Your task to perform on an android device: change the clock display to show seconds Image 0: 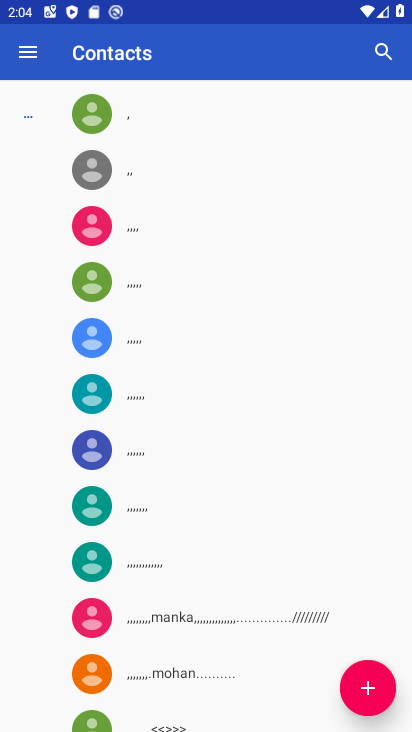
Step 0: press home button
Your task to perform on an android device: change the clock display to show seconds Image 1: 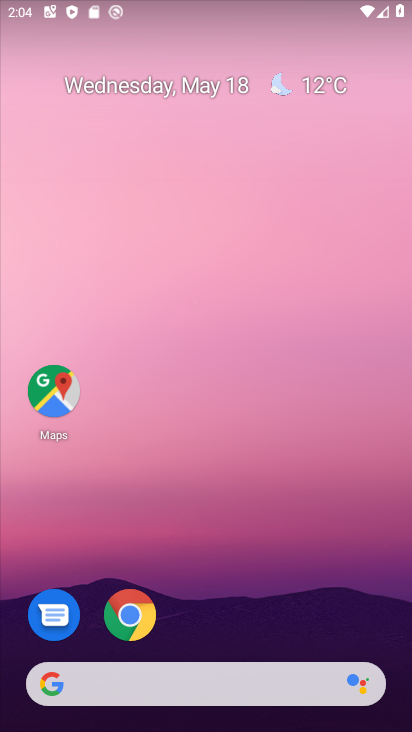
Step 1: drag from (315, 613) to (319, 38)
Your task to perform on an android device: change the clock display to show seconds Image 2: 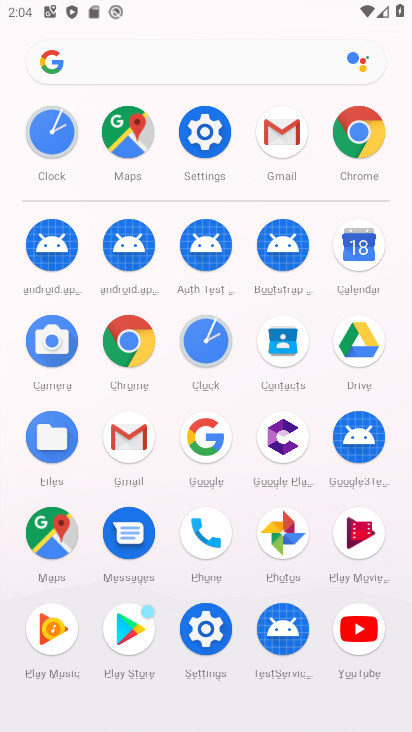
Step 2: click (196, 345)
Your task to perform on an android device: change the clock display to show seconds Image 3: 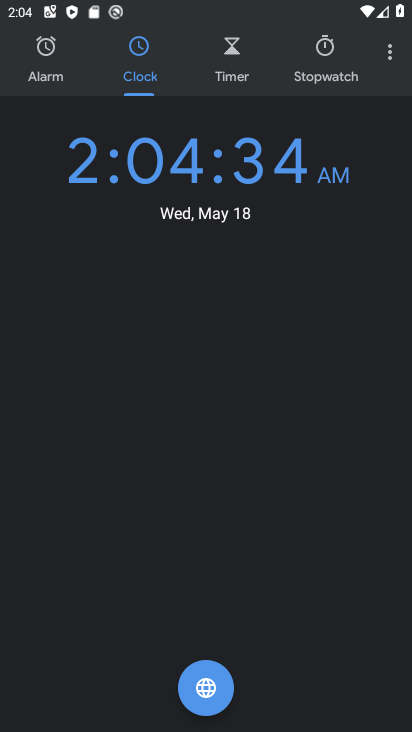
Step 3: click (394, 52)
Your task to perform on an android device: change the clock display to show seconds Image 4: 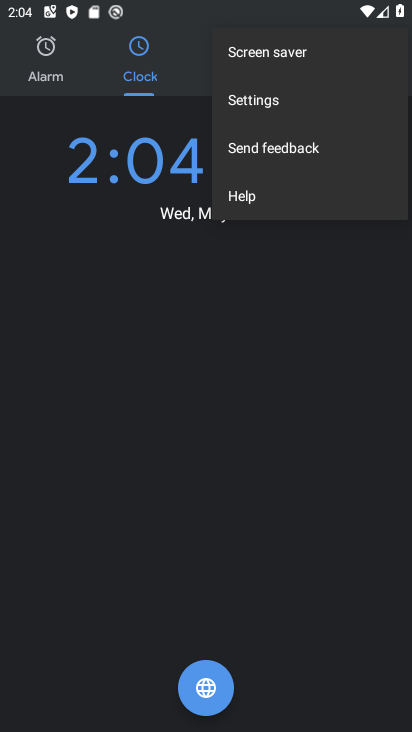
Step 4: click (299, 110)
Your task to perform on an android device: change the clock display to show seconds Image 5: 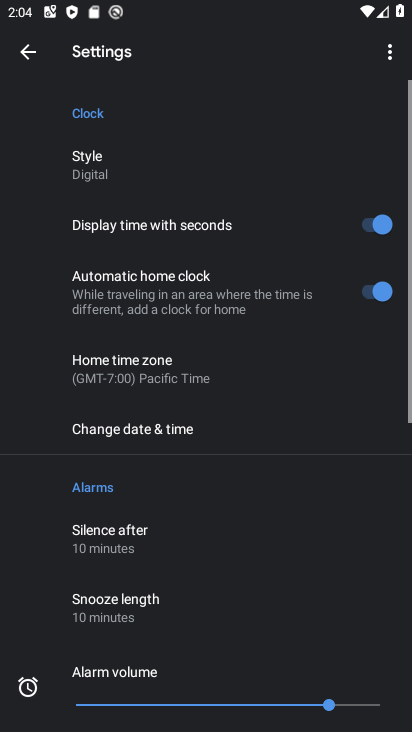
Step 5: click (351, 231)
Your task to perform on an android device: change the clock display to show seconds Image 6: 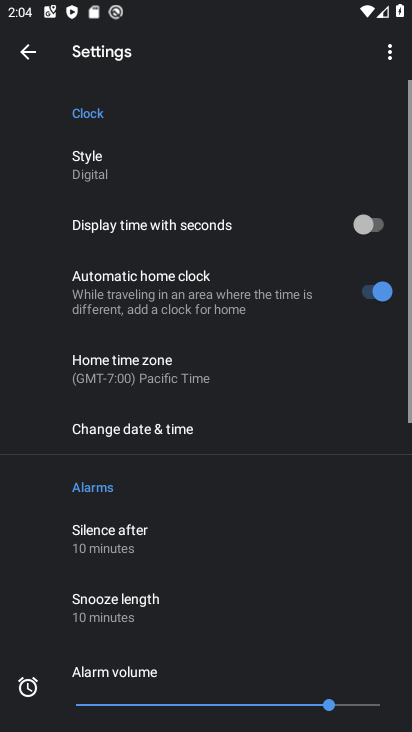
Step 6: task complete